Your task to perform on an android device: Open Google Chrome and click the shortcut for Amazon.com Image 0: 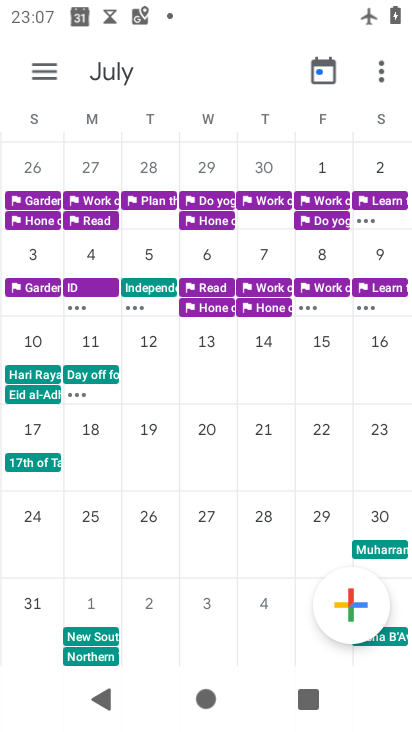
Step 0: press home button
Your task to perform on an android device: Open Google Chrome and click the shortcut for Amazon.com Image 1: 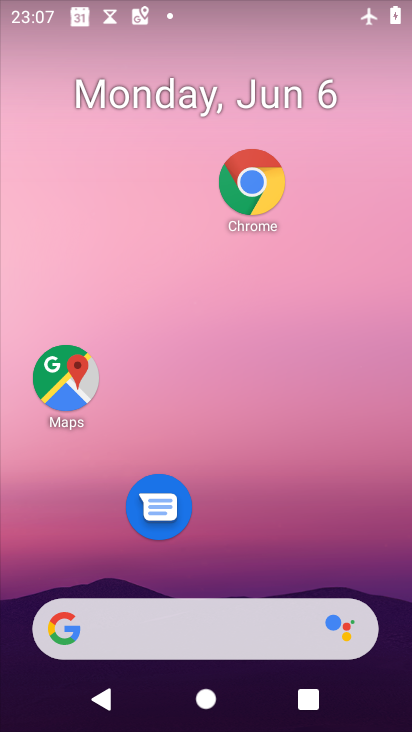
Step 1: click (257, 172)
Your task to perform on an android device: Open Google Chrome and click the shortcut for Amazon.com Image 2: 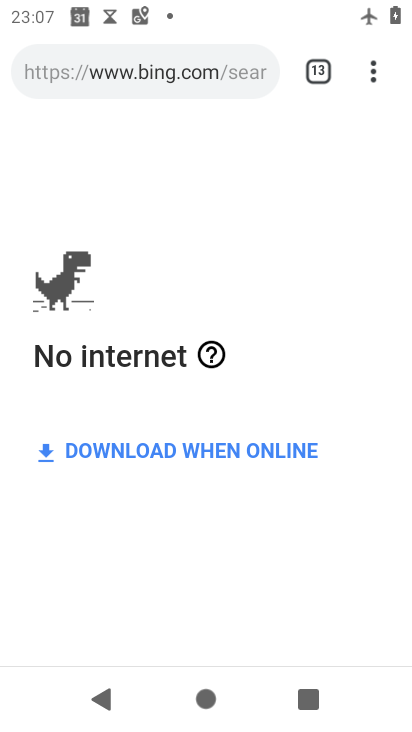
Step 2: click (365, 73)
Your task to perform on an android device: Open Google Chrome and click the shortcut for Amazon.com Image 3: 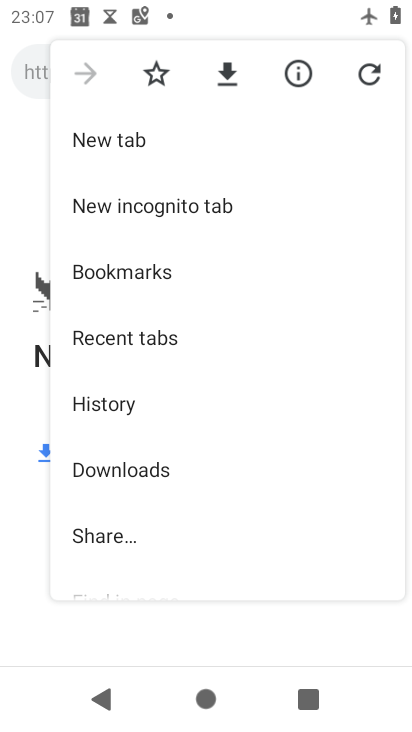
Step 3: drag from (174, 484) to (206, 221)
Your task to perform on an android device: Open Google Chrome and click the shortcut for Amazon.com Image 4: 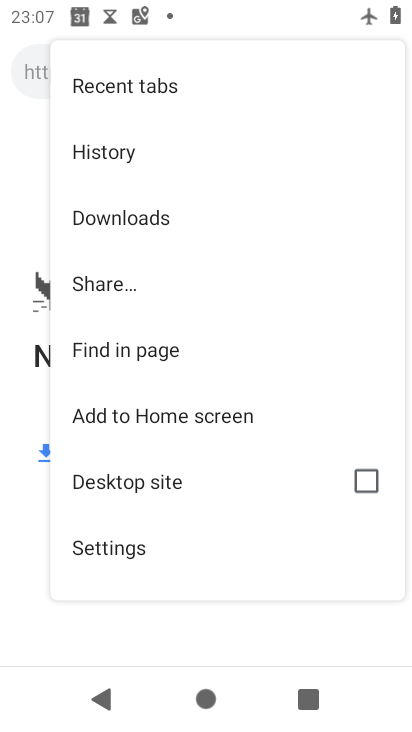
Step 4: drag from (216, 73) to (220, 440)
Your task to perform on an android device: Open Google Chrome and click the shortcut for Amazon.com Image 5: 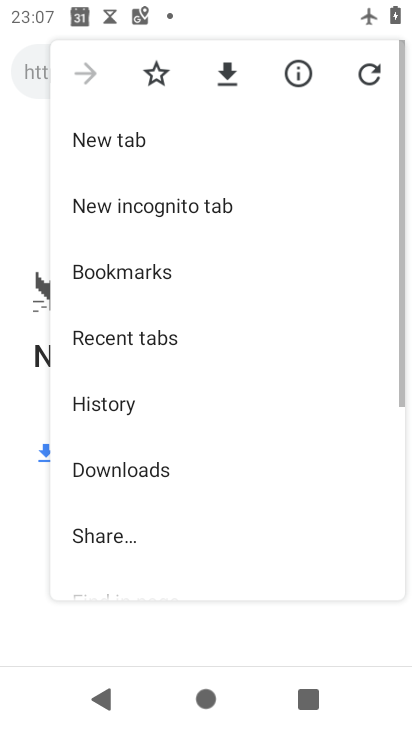
Step 5: click (151, 134)
Your task to perform on an android device: Open Google Chrome and click the shortcut for Amazon.com Image 6: 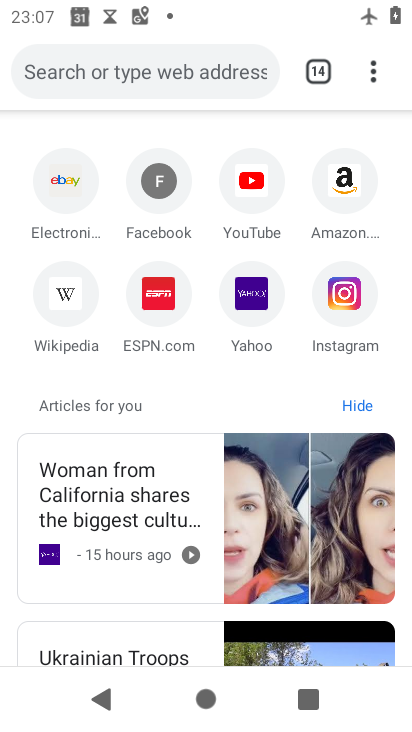
Step 6: click (340, 164)
Your task to perform on an android device: Open Google Chrome and click the shortcut for Amazon.com Image 7: 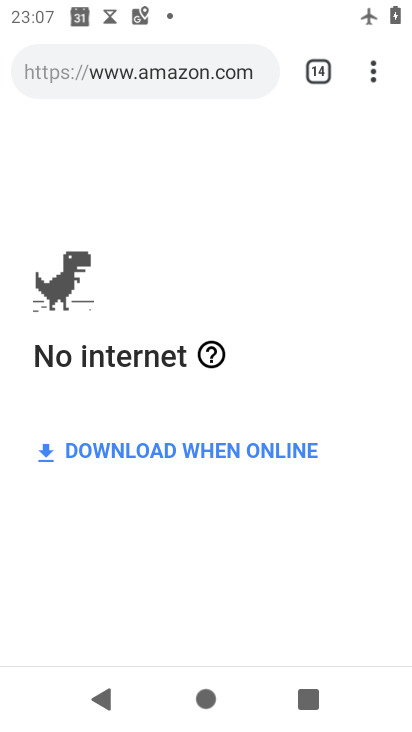
Step 7: task complete